Your task to perform on an android device: Play the last video I watched on Youtube Image 0: 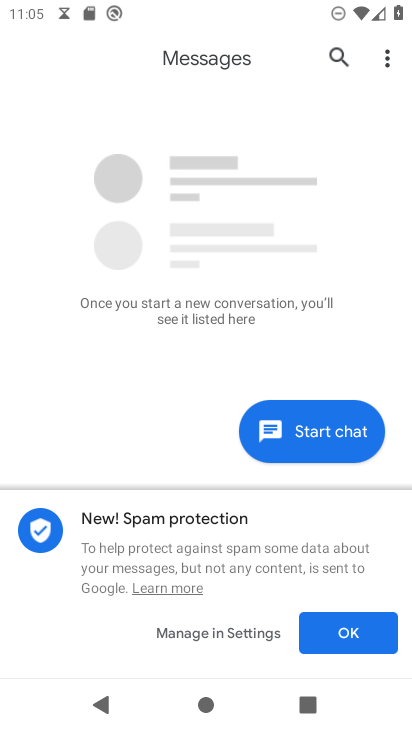
Step 0: press home button
Your task to perform on an android device: Play the last video I watched on Youtube Image 1: 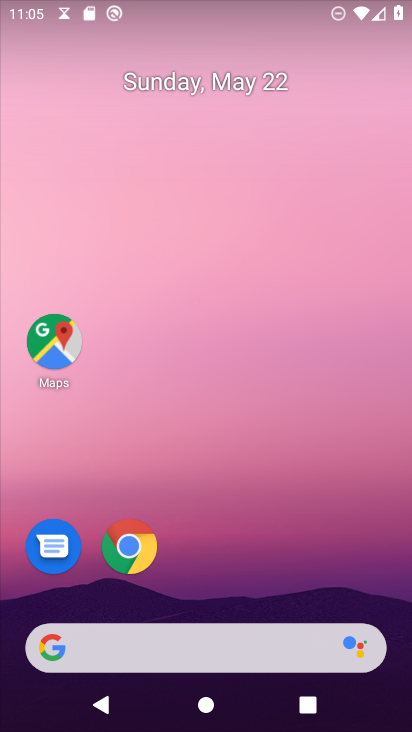
Step 1: drag from (225, 614) to (278, 100)
Your task to perform on an android device: Play the last video I watched on Youtube Image 2: 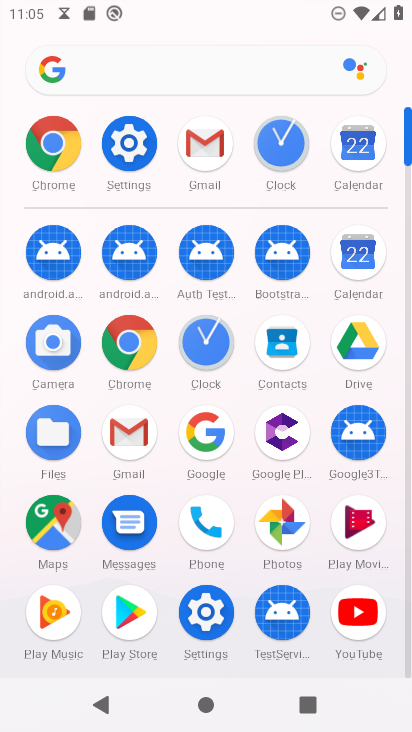
Step 2: click (344, 611)
Your task to perform on an android device: Play the last video I watched on Youtube Image 3: 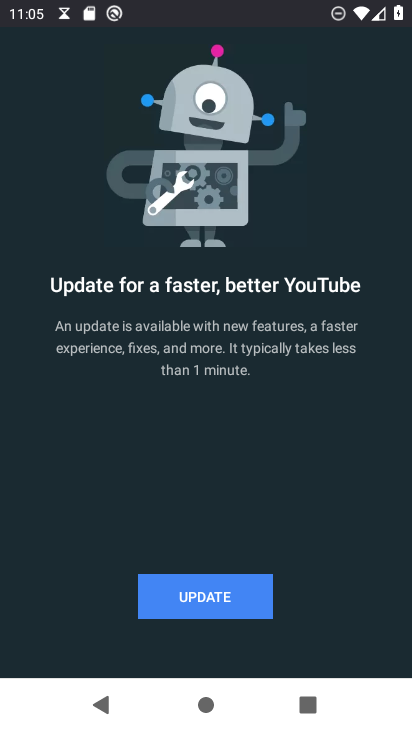
Step 3: click (246, 588)
Your task to perform on an android device: Play the last video I watched on Youtube Image 4: 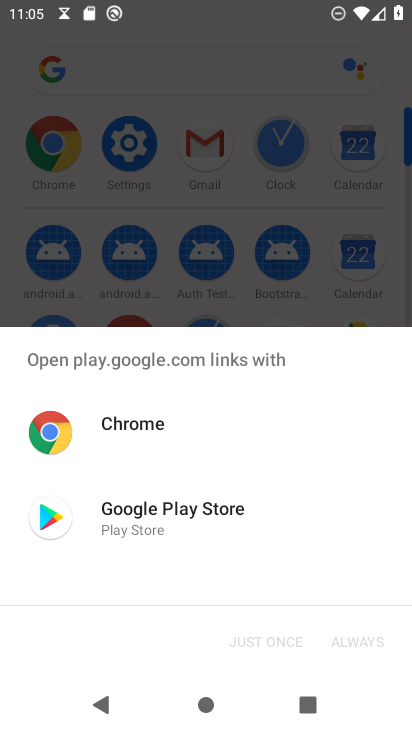
Step 4: click (137, 510)
Your task to perform on an android device: Play the last video I watched on Youtube Image 5: 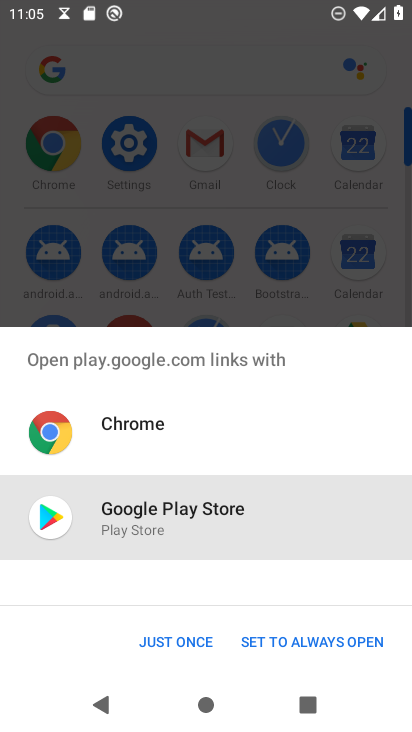
Step 5: click (169, 640)
Your task to perform on an android device: Play the last video I watched on Youtube Image 6: 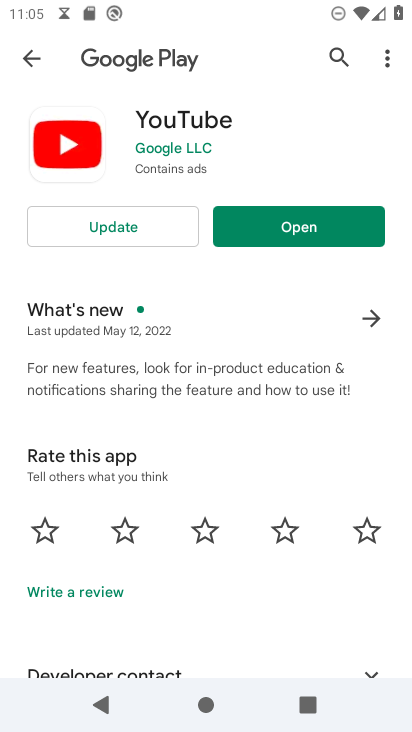
Step 6: click (135, 233)
Your task to perform on an android device: Play the last video I watched on Youtube Image 7: 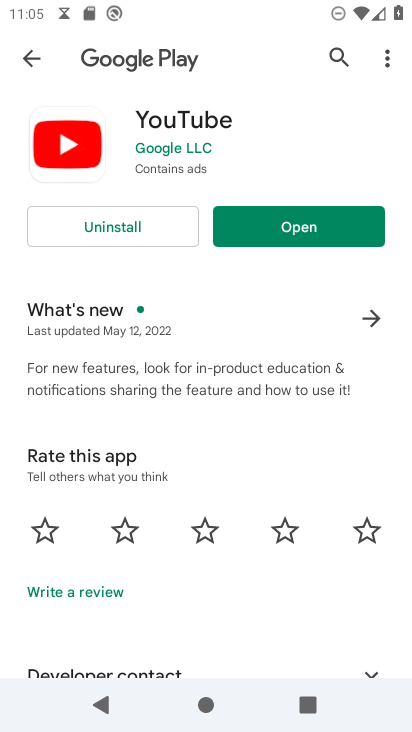
Step 7: click (264, 226)
Your task to perform on an android device: Play the last video I watched on Youtube Image 8: 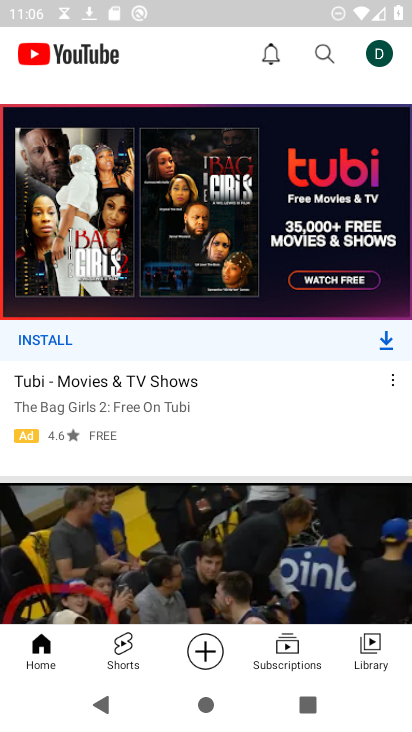
Step 8: click (147, 177)
Your task to perform on an android device: Play the last video I watched on Youtube Image 9: 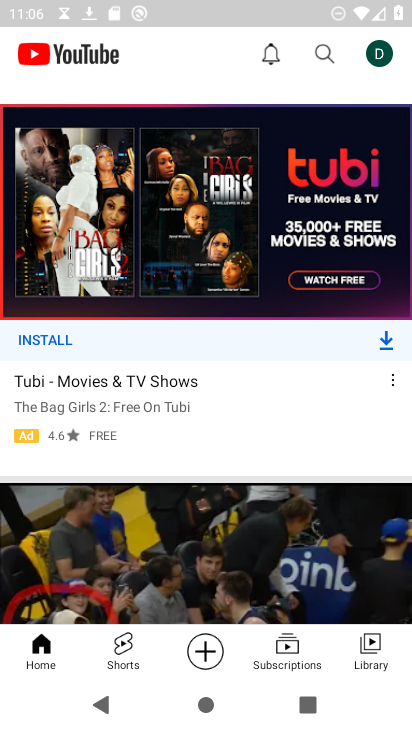
Step 9: drag from (146, 192) to (137, 525)
Your task to perform on an android device: Play the last video I watched on Youtube Image 10: 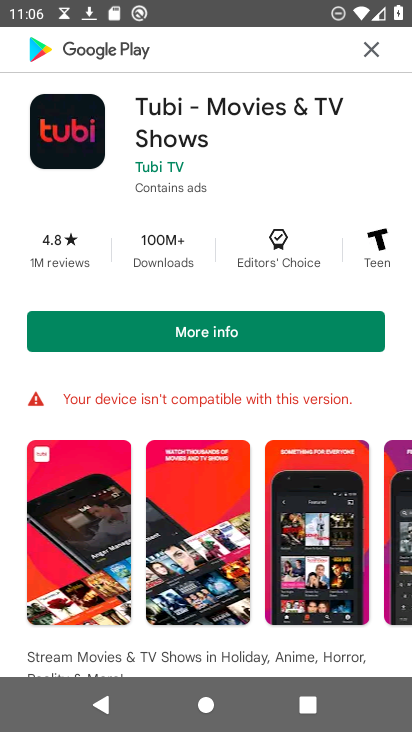
Step 10: click (376, 47)
Your task to perform on an android device: Play the last video I watched on Youtube Image 11: 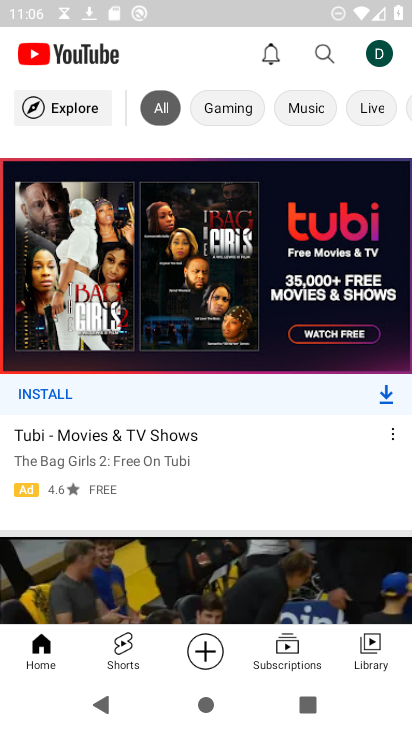
Step 11: click (370, 650)
Your task to perform on an android device: Play the last video I watched on Youtube Image 12: 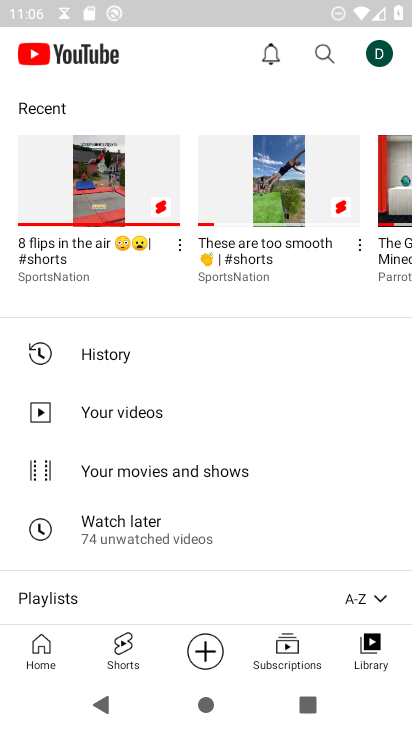
Step 12: click (110, 183)
Your task to perform on an android device: Play the last video I watched on Youtube Image 13: 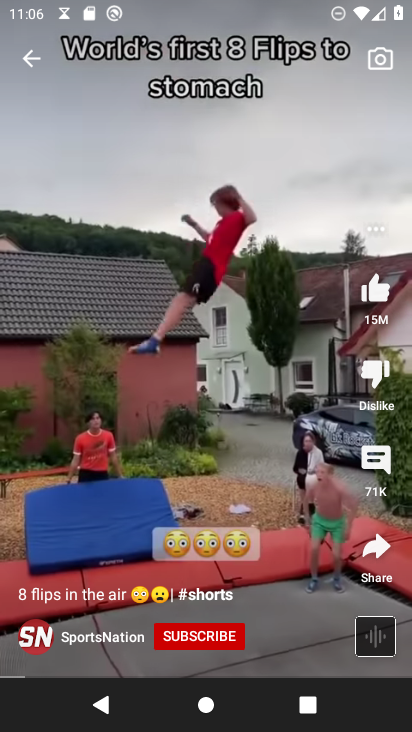
Step 13: task complete